Your task to perform on an android device: find snoozed emails in the gmail app Image 0: 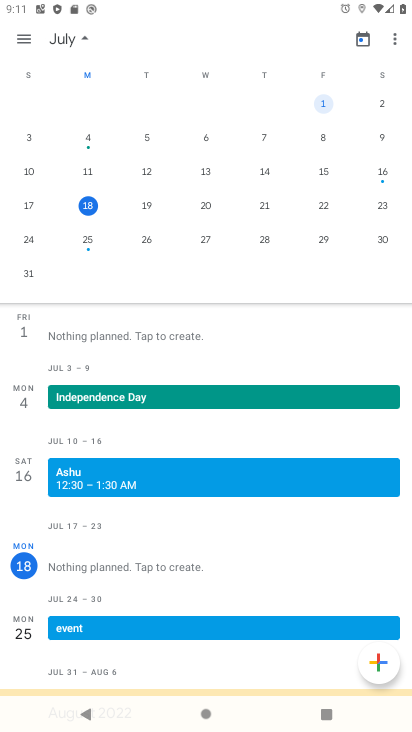
Step 0: press home button
Your task to perform on an android device: find snoozed emails in the gmail app Image 1: 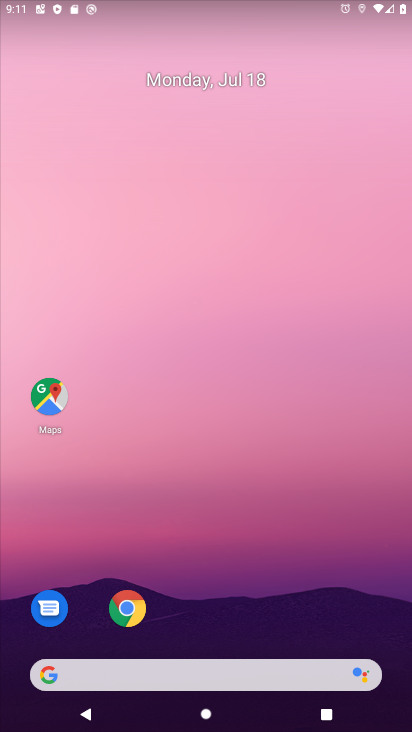
Step 1: drag from (27, 704) to (261, 80)
Your task to perform on an android device: find snoozed emails in the gmail app Image 2: 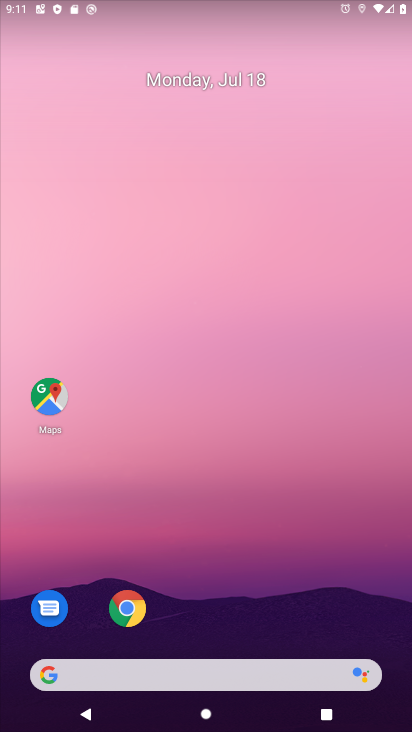
Step 2: drag from (34, 715) to (258, 19)
Your task to perform on an android device: find snoozed emails in the gmail app Image 3: 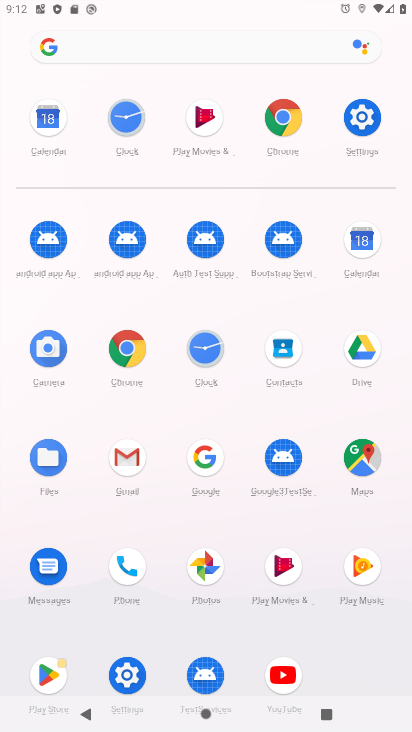
Step 3: click (126, 461)
Your task to perform on an android device: find snoozed emails in the gmail app Image 4: 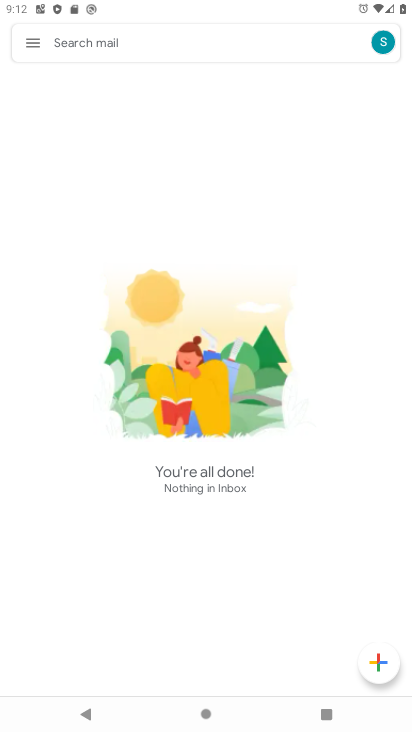
Step 4: click (26, 37)
Your task to perform on an android device: find snoozed emails in the gmail app Image 5: 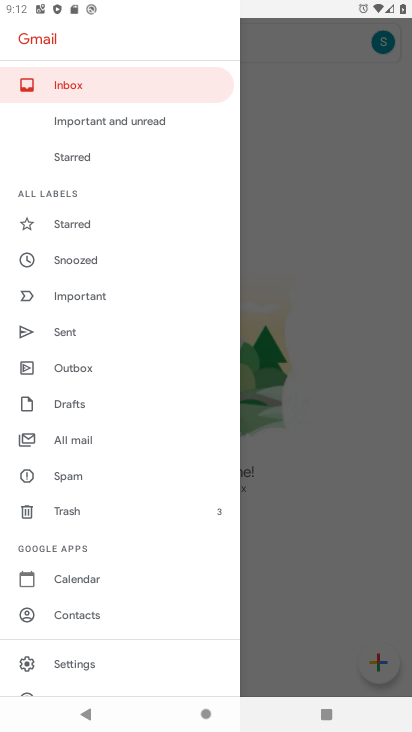
Step 5: click (80, 261)
Your task to perform on an android device: find snoozed emails in the gmail app Image 6: 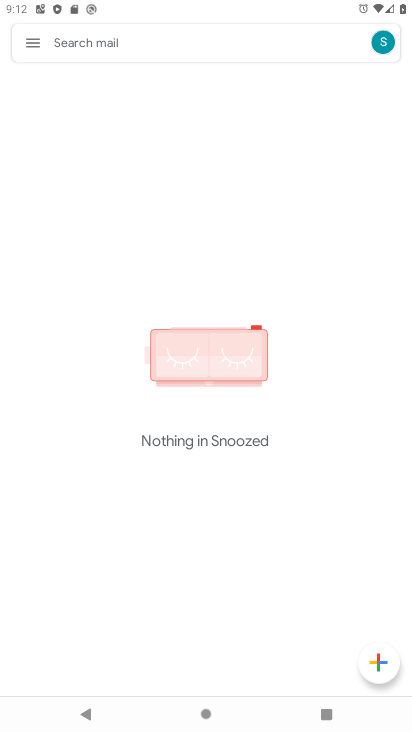
Step 6: task complete